Your task to perform on an android device: Search for Italian restaurants on Maps Image 0: 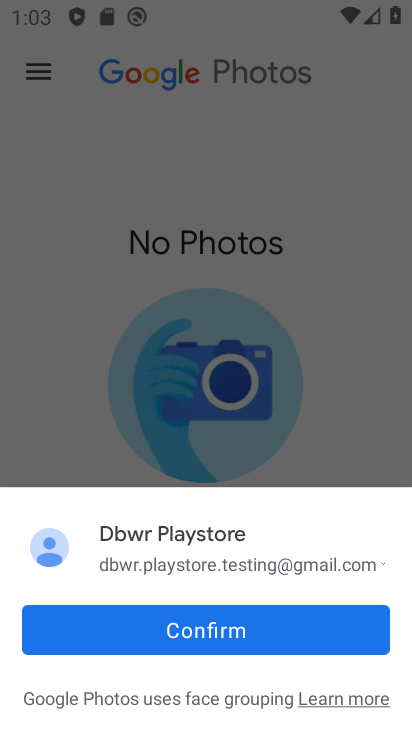
Step 0: press home button
Your task to perform on an android device: Search for Italian restaurants on Maps Image 1: 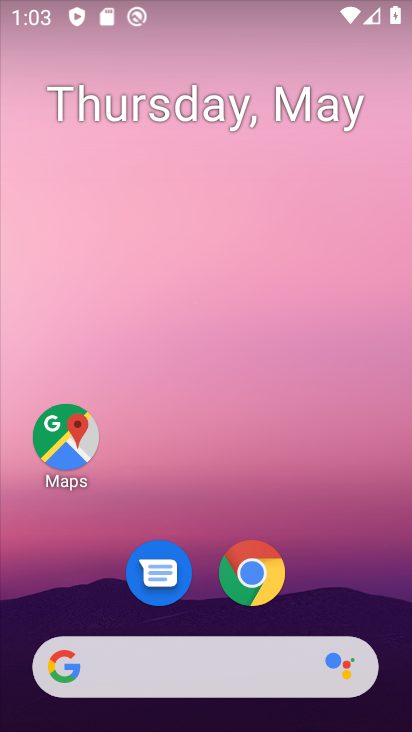
Step 1: click (72, 441)
Your task to perform on an android device: Search for Italian restaurants on Maps Image 2: 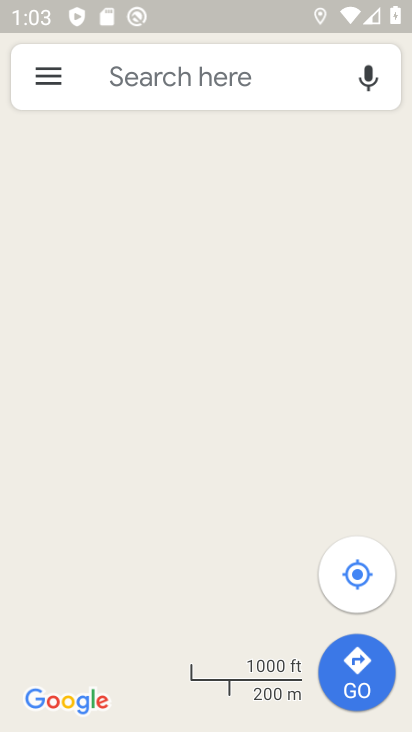
Step 2: click (144, 92)
Your task to perform on an android device: Search for Italian restaurants on Maps Image 3: 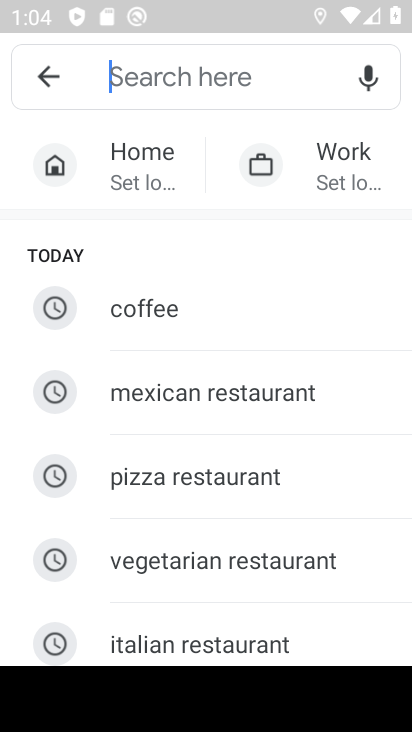
Step 3: click (193, 647)
Your task to perform on an android device: Search for Italian restaurants on Maps Image 4: 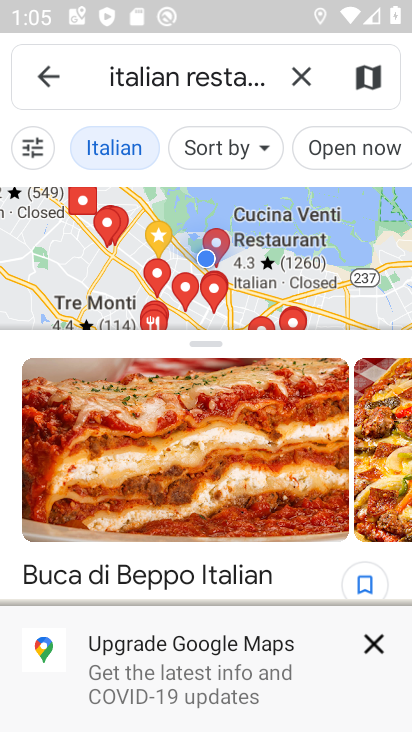
Step 4: task complete